Your task to perform on an android device: turn off improve location accuracy Image 0: 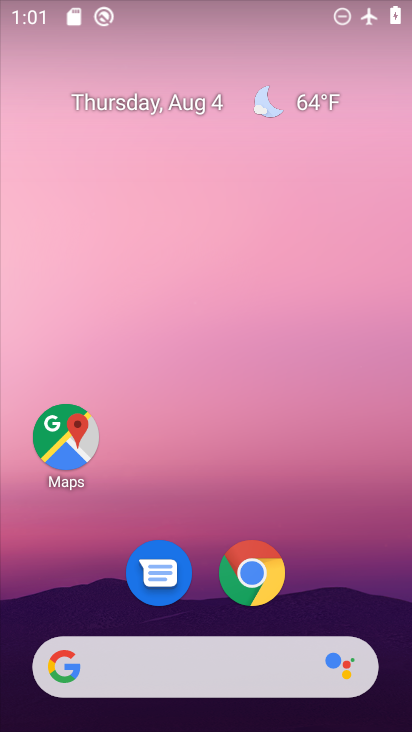
Step 0: drag from (345, 539) to (312, 90)
Your task to perform on an android device: turn off improve location accuracy Image 1: 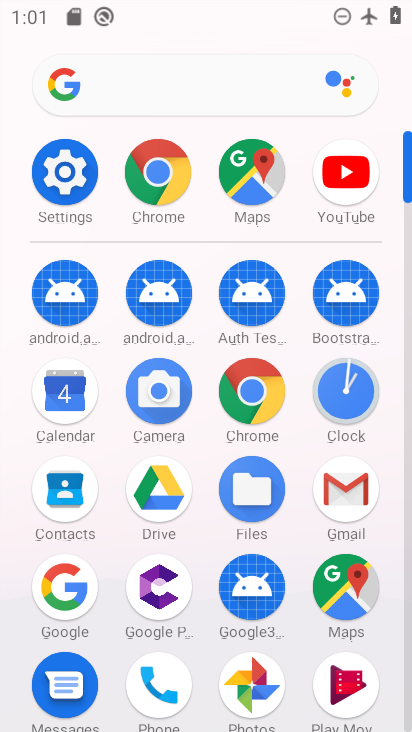
Step 1: click (76, 190)
Your task to perform on an android device: turn off improve location accuracy Image 2: 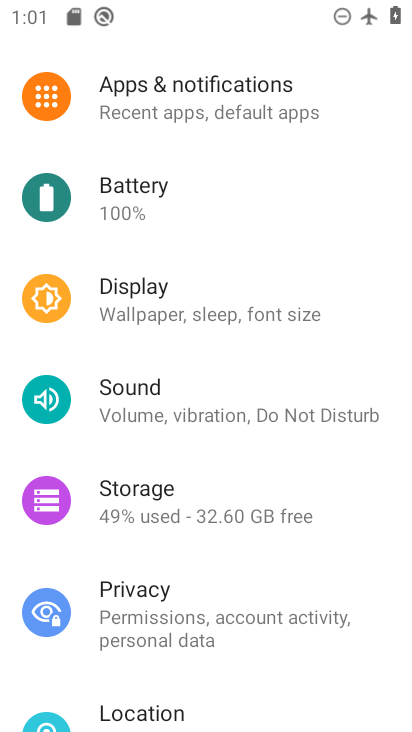
Step 2: drag from (290, 574) to (266, 93)
Your task to perform on an android device: turn off improve location accuracy Image 3: 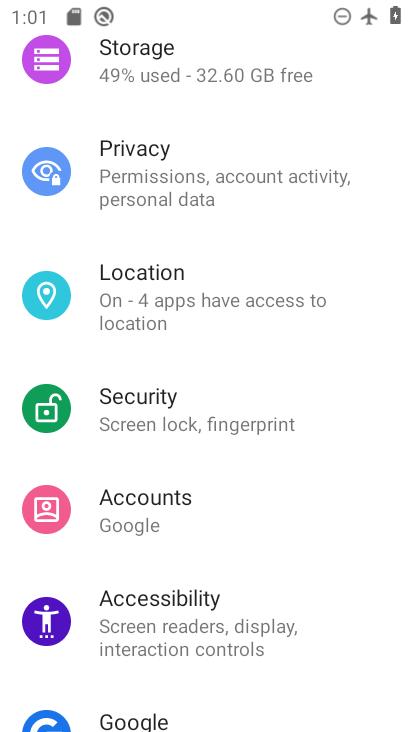
Step 3: click (171, 267)
Your task to perform on an android device: turn off improve location accuracy Image 4: 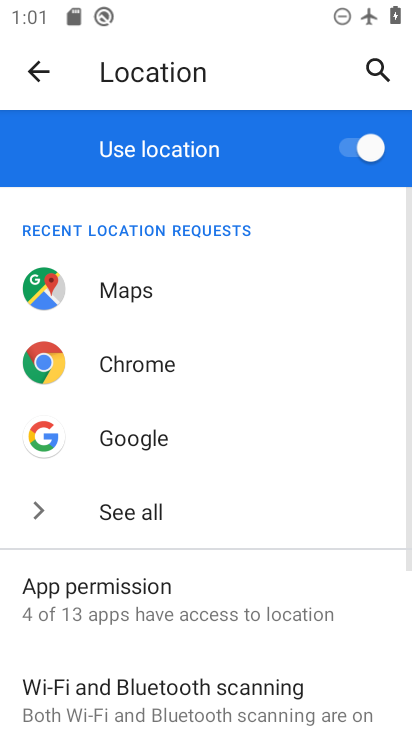
Step 4: drag from (252, 641) to (305, 253)
Your task to perform on an android device: turn off improve location accuracy Image 5: 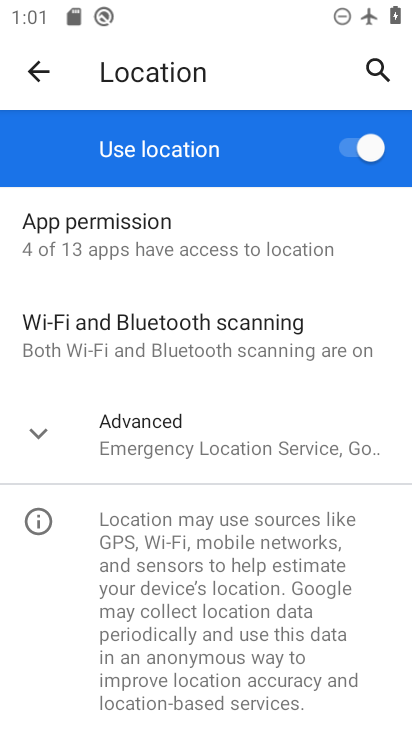
Step 5: click (218, 473)
Your task to perform on an android device: turn off improve location accuracy Image 6: 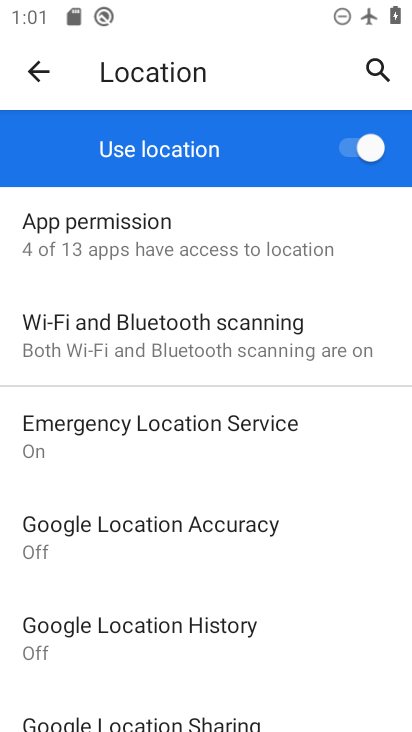
Step 6: click (254, 534)
Your task to perform on an android device: turn off improve location accuracy Image 7: 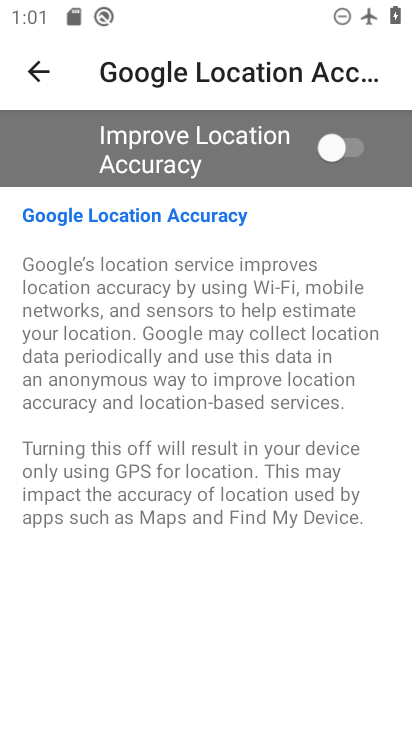
Step 7: task complete